Your task to perform on an android device: What's on my calendar today? Image 0: 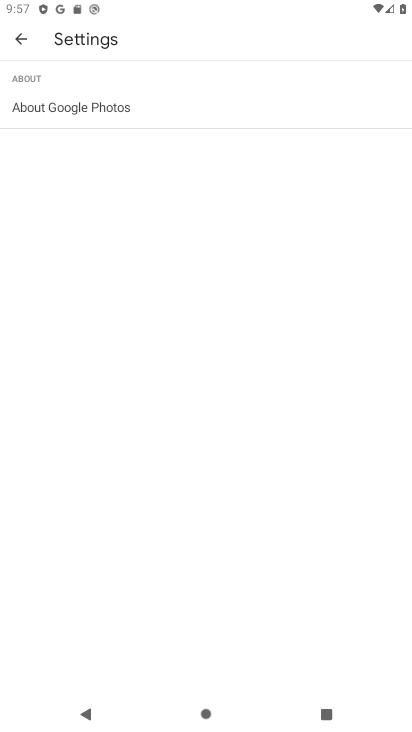
Step 0: press home button
Your task to perform on an android device: What's on my calendar today? Image 1: 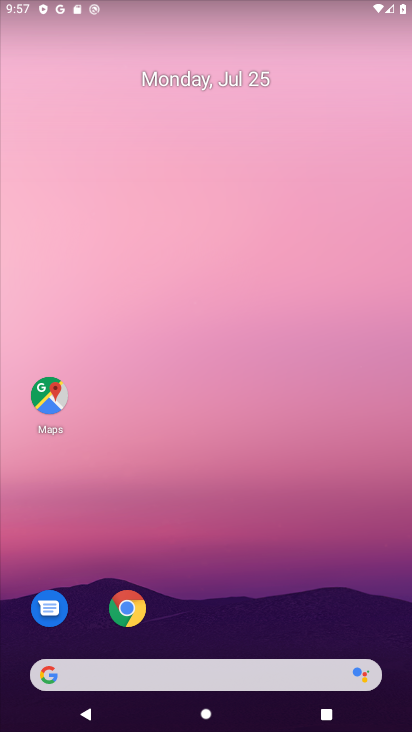
Step 1: drag from (196, 666) to (391, 615)
Your task to perform on an android device: What's on my calendar today? Image 2: 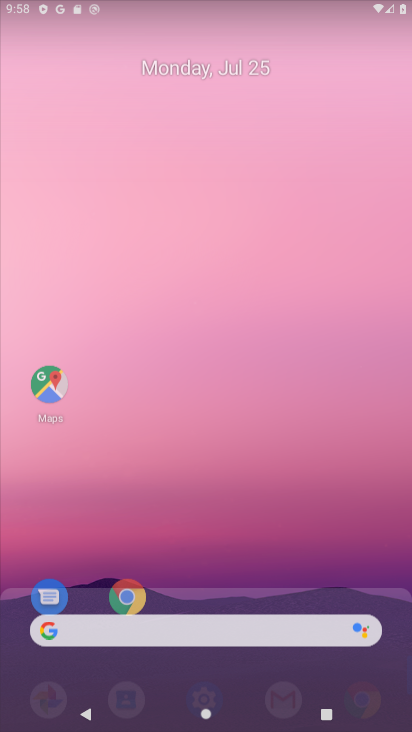
Step 2: drag from (275, 466) to (292, 177)
Your task to perform on an android device: What's on my calendar today? Image 3: 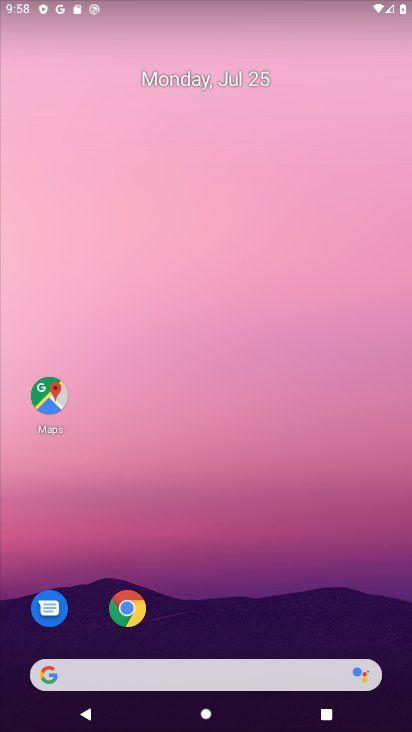
Step 3: drag from (255, 656) to (300, 194)
Your task to perform on an android device: What's on my calendar today? Image 4: 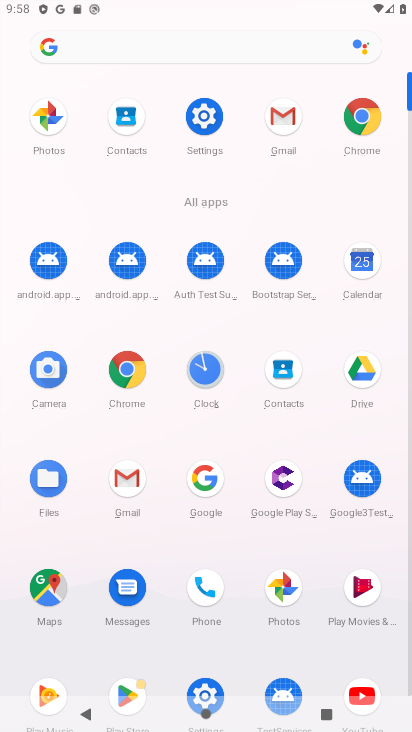
Step 4: click (358, 271)
Your task to perform on an android device: What's on my calendar today? Image 5: 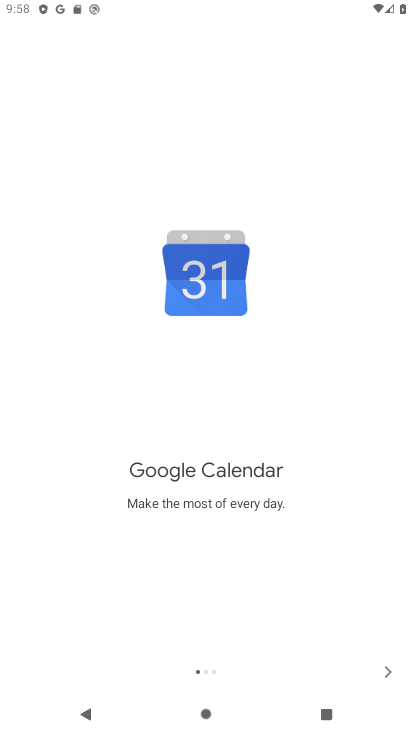
Step 5: click (396, 669)
Your task to perform on an android device: What's on my calendar today? Image 6: 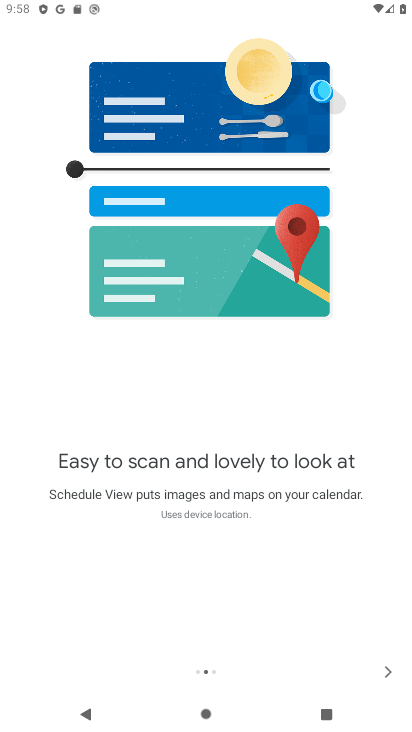
Step 6: click (385, 671)
Your task to perform on an android device: What's on my calendar today? Image 7: 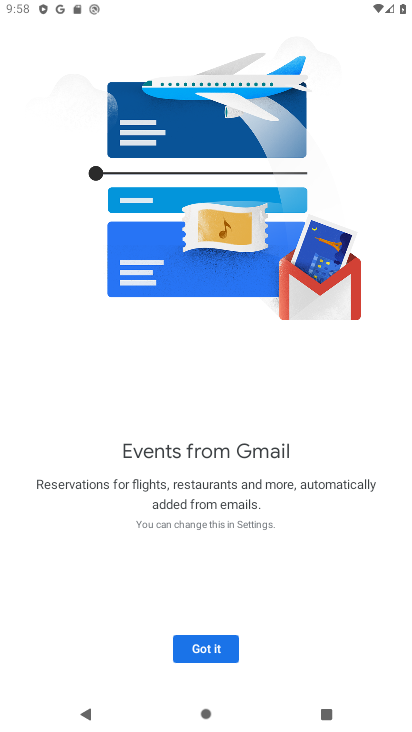
Step 7: click (219, 638)
Your task to perform on an android device: What's on my calendar today? Image 8: 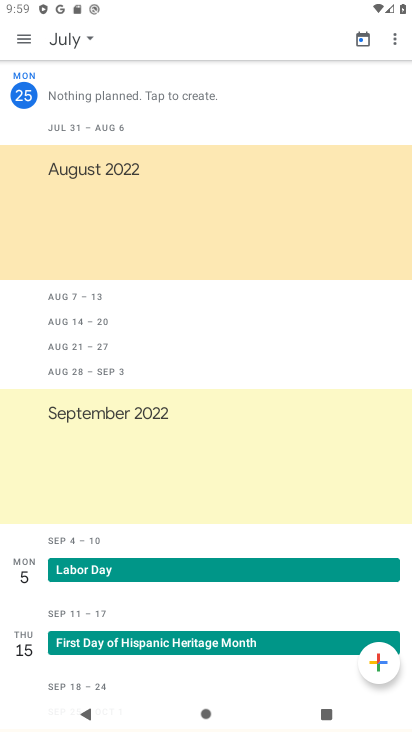
Step 8: task complete